Your task to perform on an android device: Go to location settings Image 0: 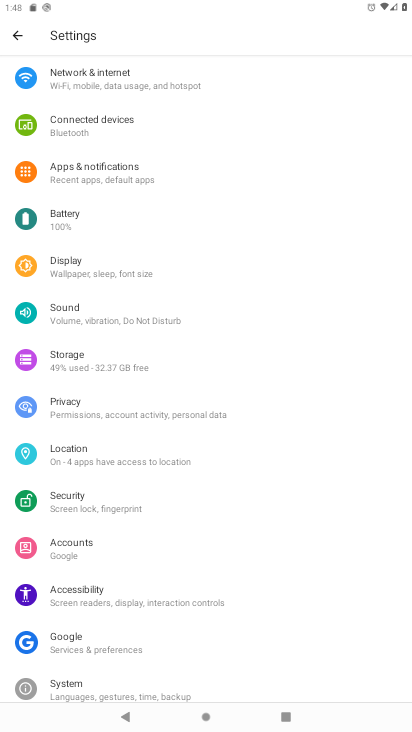
Step 0: press home button
Your task to perform on an android device: Go to location settings Image 1: 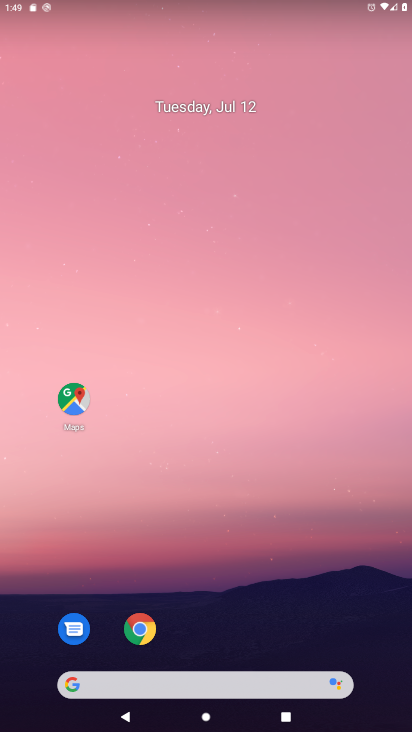
Step 1: drag from (275, 682) to (326, 2)
Your task to perform on an android device: Go to location settings Image 2: 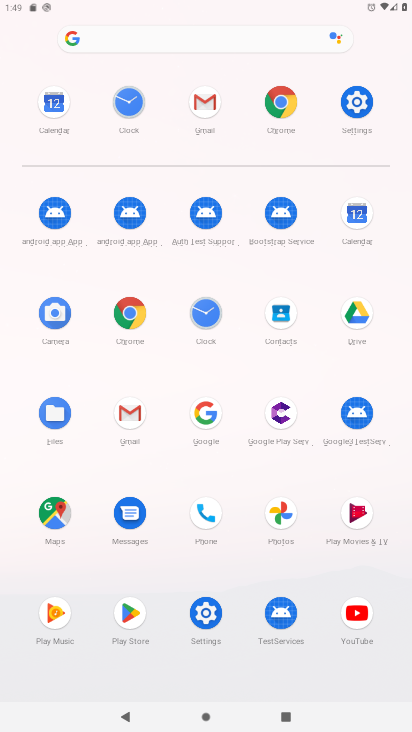
Step 2: click (357, 94)
Your task to perform on an android device: Go to location settings Image 3: 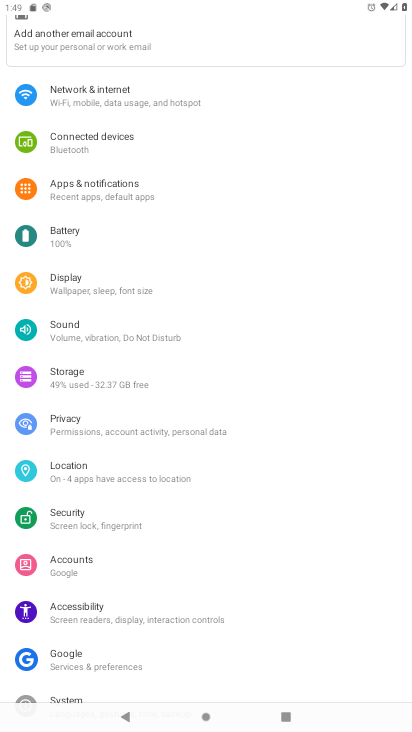
Step 3: click (137, 460)
Your task to perform on an android device: Go to location settings Image 4: 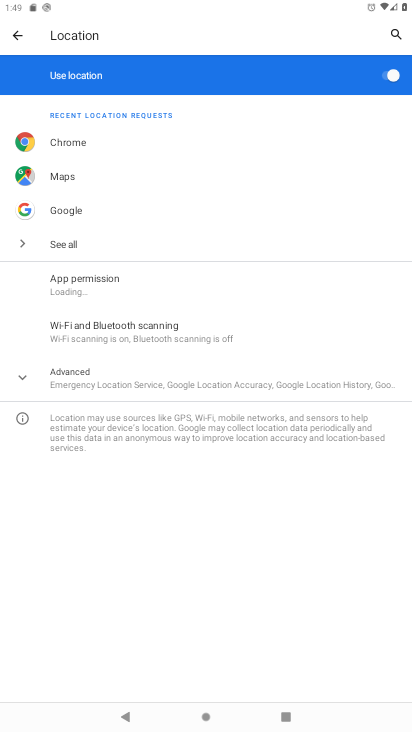
Step 4: task complete